Your task to perform on an android device: What is the news today? Image 0: 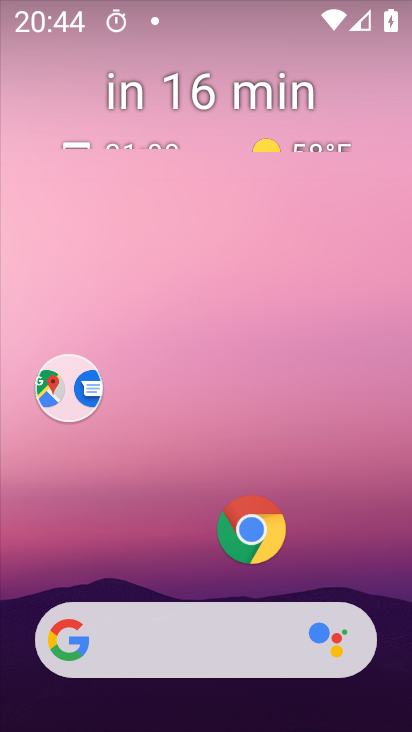
Step 0: drag from (206, 554) to (186, 113)
Your task to perform on an android device: What is the news today? Image 1: 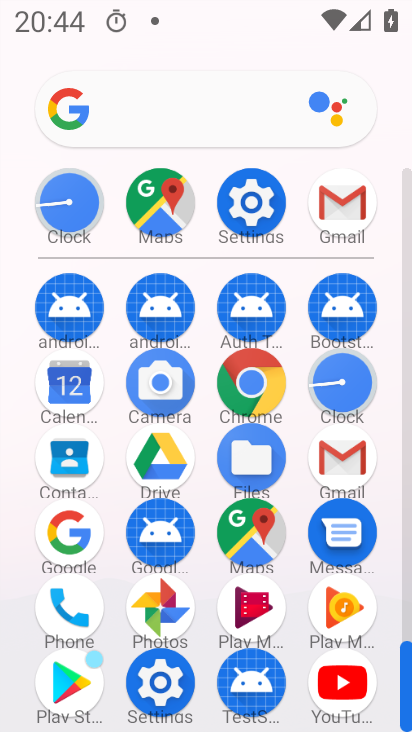
Step 1: click (77, 527)
Your task to perform on an android device: What is the news today? Image 2: 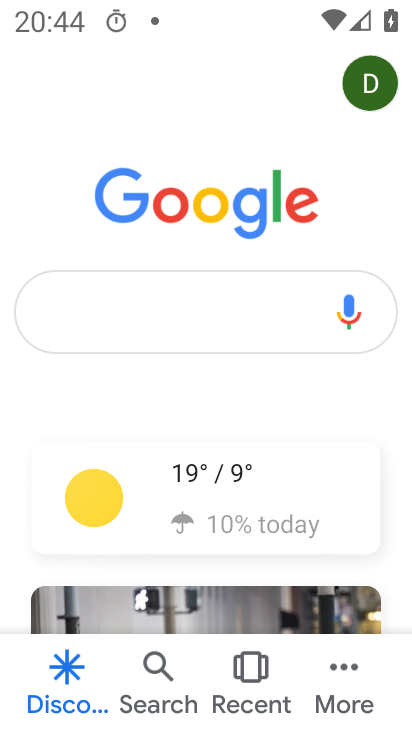
Step 2: click (170, 306)
Your task to perform on an android device: What is the news today? Image 3: 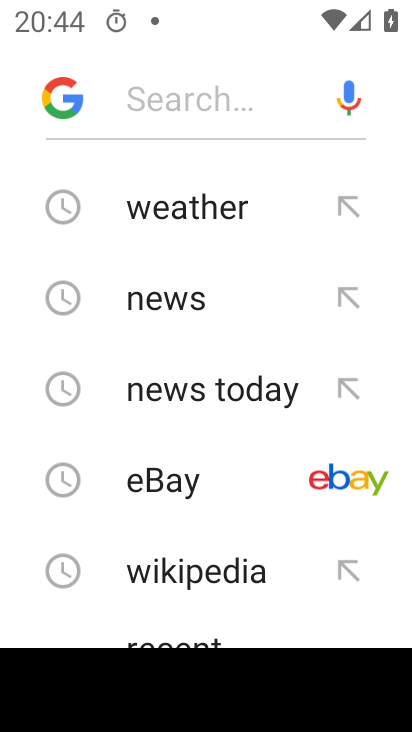
Step 3: click (195, 316)
Your task to perform on an android device: What is the news today? Image 4: 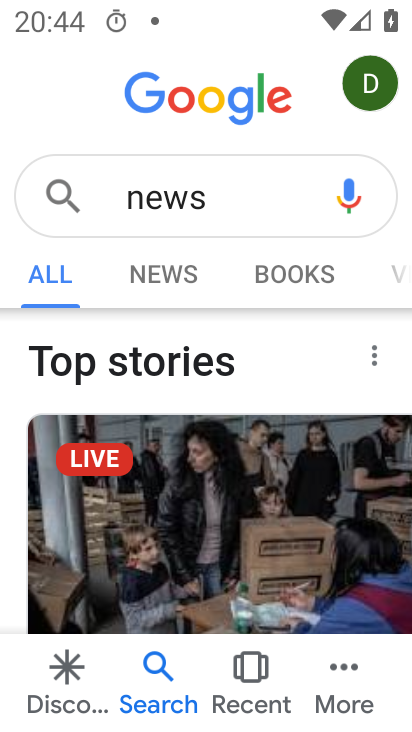
Step 4: task complete